Your task to perform on an android device: Search for Italian restaurants on Maps Image 0: 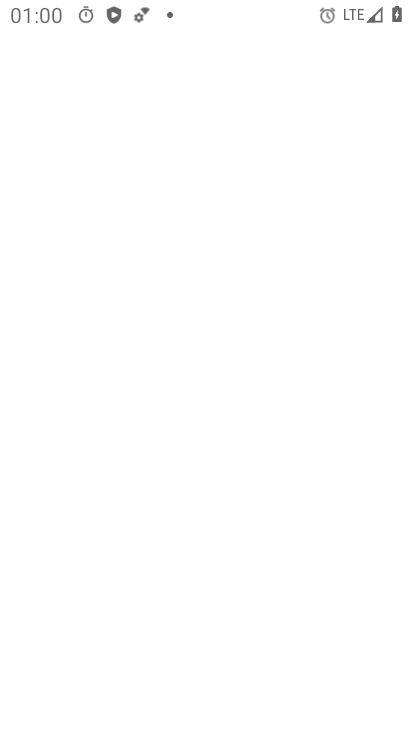
Step 0: drag from (362, 582) to (319, 150)
Your task to perform on an android device: Search for Italian restaurants on Maps Image 1: 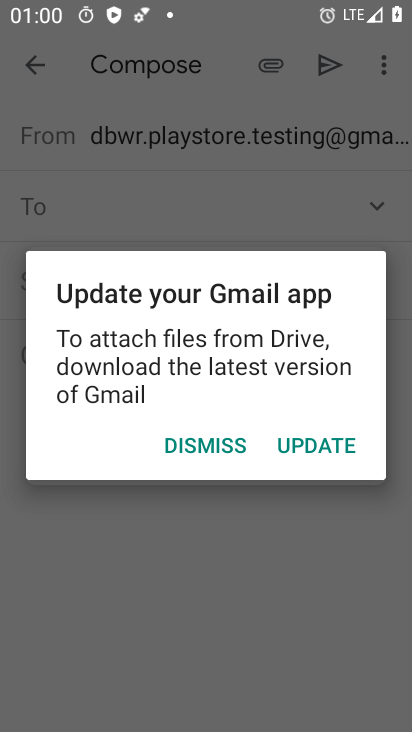
Step 1: press home button
Your task to perform on an android device: Search for Italian restaurants on Maps Image 2: 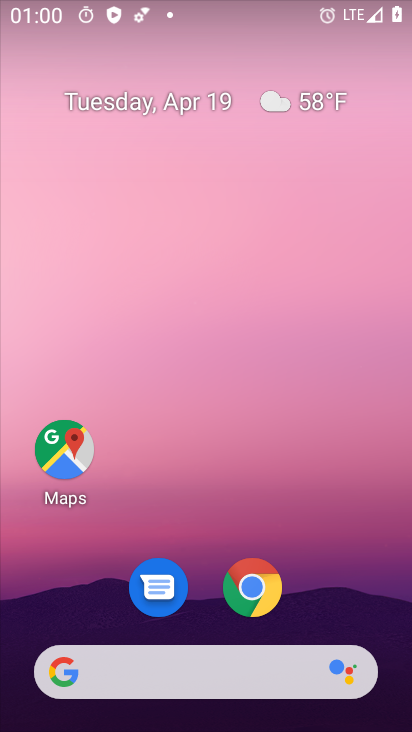
Step 2: drag from (365, 538) to (328, 153)
Your task to perform on an android device: Search for Italian restaurants on Maps Image 3: 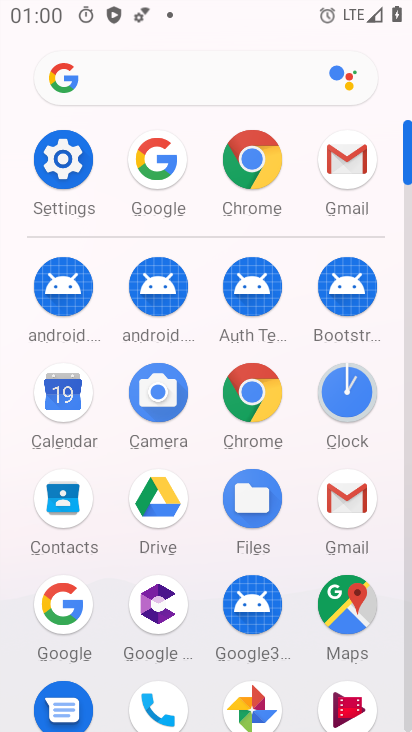
Step 3: click (243, 401)
Your task to perform on an android device: Search for Italian restaurants on Maps Image 4: 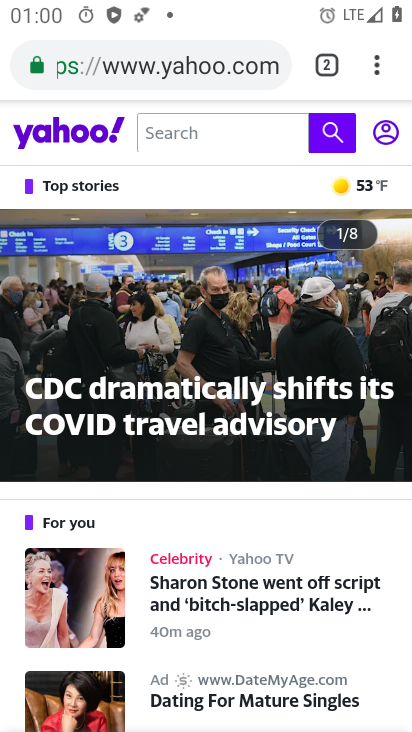
Step 4: press home button
Your task to perform on an android device: Search for Italian restaurants on Maps Image 5: 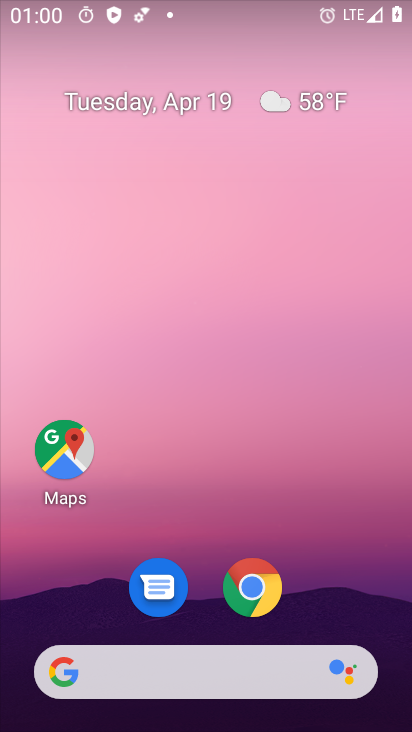
Step 5: drag from (359, 547) to (351, 119)
Your task to perform on an android device: Search for Italian restaurants on Maps Image 6: 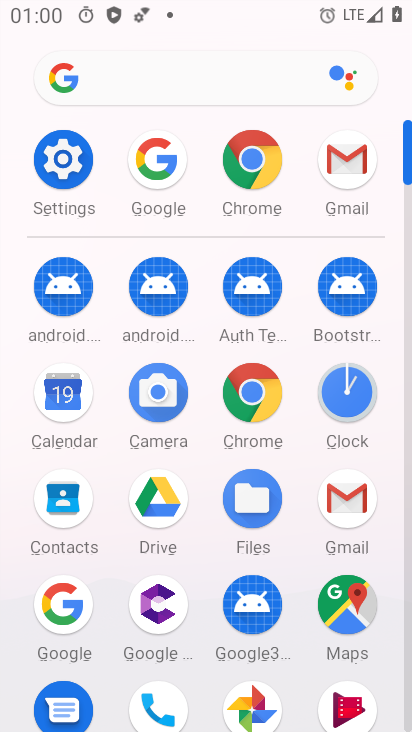
Step 6: click (241, 179)
Your task to perform on an android device: Search for Italian restaurants on Maps Image 7: 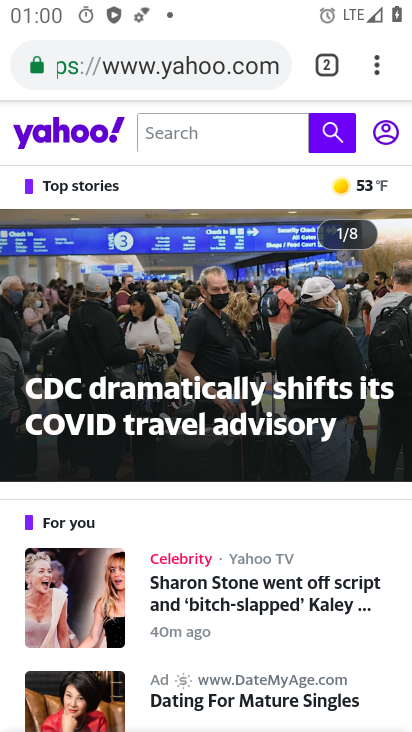
Step 7: click (326, 75)
Your task to perform on an android device: Search for Italian restaurants on Maps Image 8: 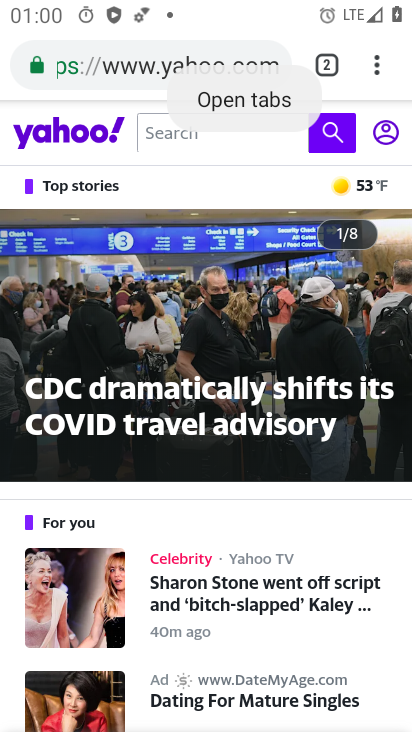
Step 8: click (209, 99)
Your task to perform on an android device: Search for Italian restaurants on Maps Image 9: 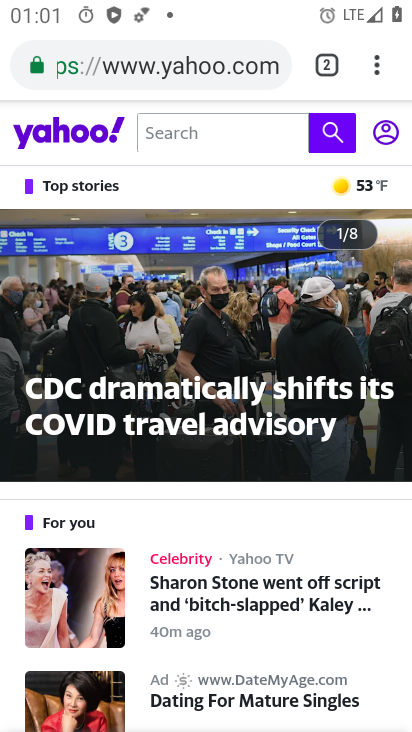
Step 9: click (334, 70)
Your task to perform on an android device: Search for Italian restaurants on Maps Image 10: 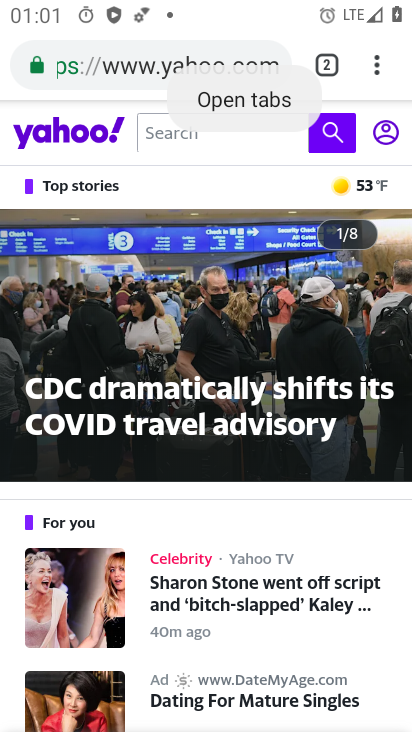
Step 10: click (246, 106)
Your task to perform on an android device: Search for Italian restaurants on Maps Image 11: 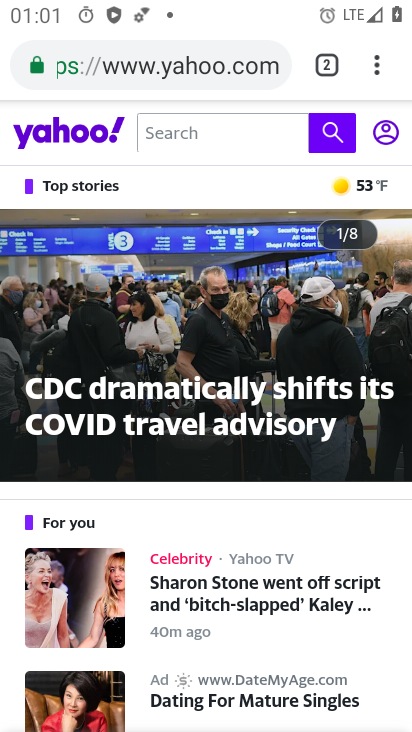
Step 11: click (327, 78)
Your task to perform on an android device: Search for Italian restaurants on Maps Image 12: 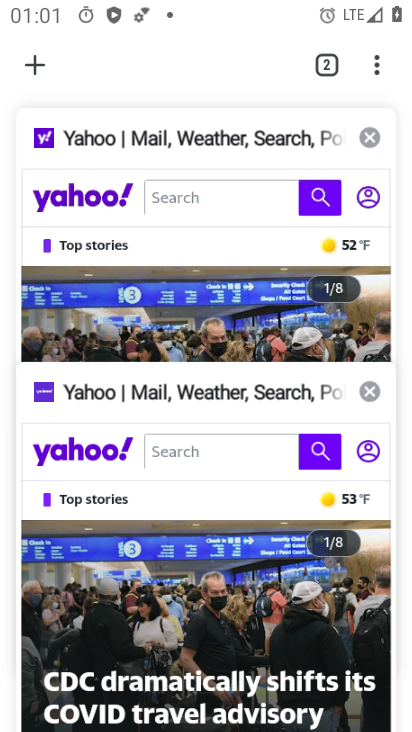
Step 12: click (36, 62)
Your task to perform on an android device: Search for Italian restaurants on Maps Image 13: 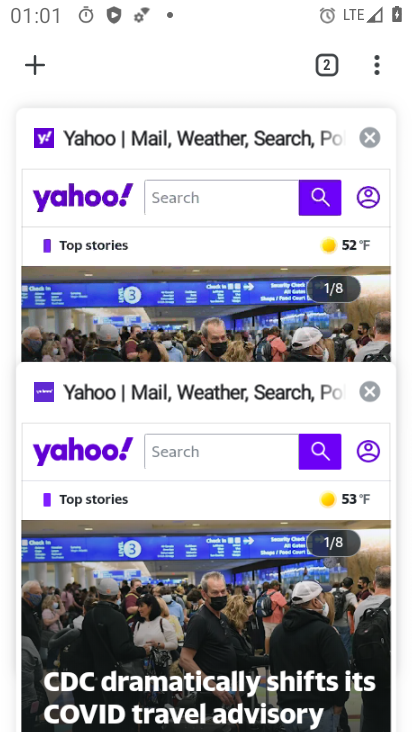
Step 13: click (27, 65)
Your task to perform on an android device: Search for Italian restaurants on Maps Image 14: 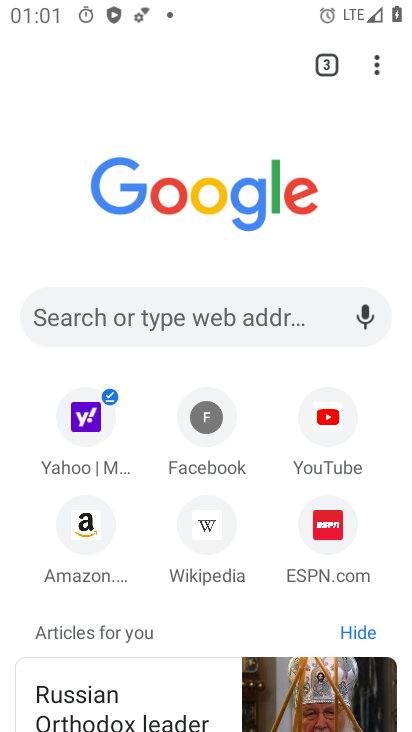
Step 14: click (159, 320)
Your task to perform on an android device: Search for Italian restaurants on Maps Image 15: 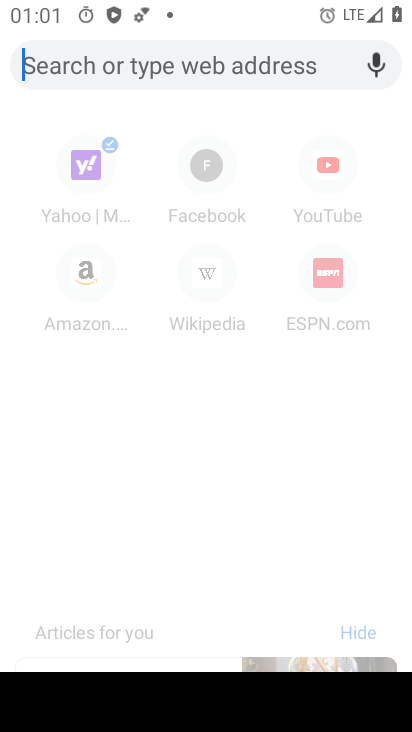
Step 15: type "italian restaurants"
Your task to perform on an android device: Search for Italian restaurants on Maps Image 16: 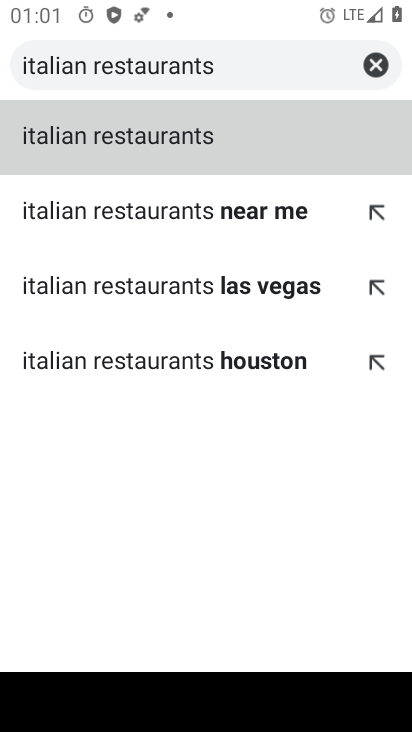
Step 16: click (146, 130)
Your task to perform on an android device: Search for Italian restaurants on Maps Image 17: 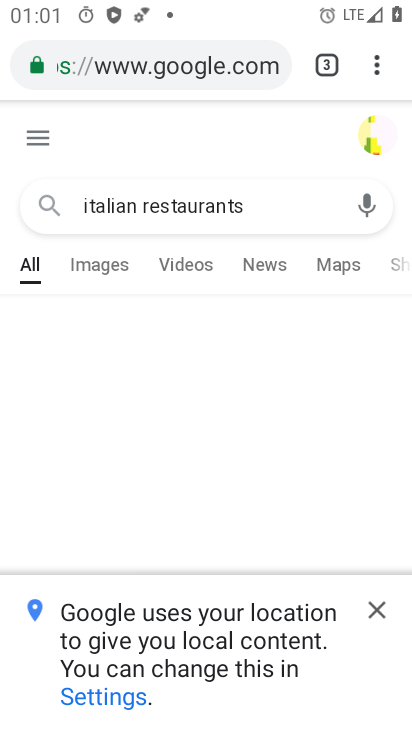
Step 17: click (383, 618)
Your task to perform on an android device: Search for Italian restaurants on Maps Image 18: 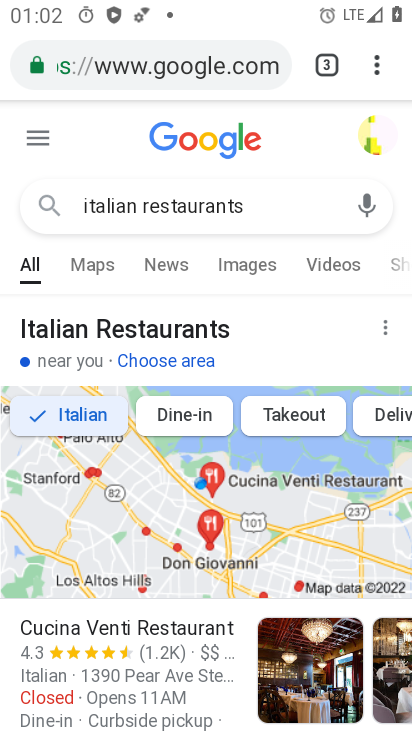
Step 18: task complete